Your task to perform on an android device: find which apps use the phone's location Image 0: 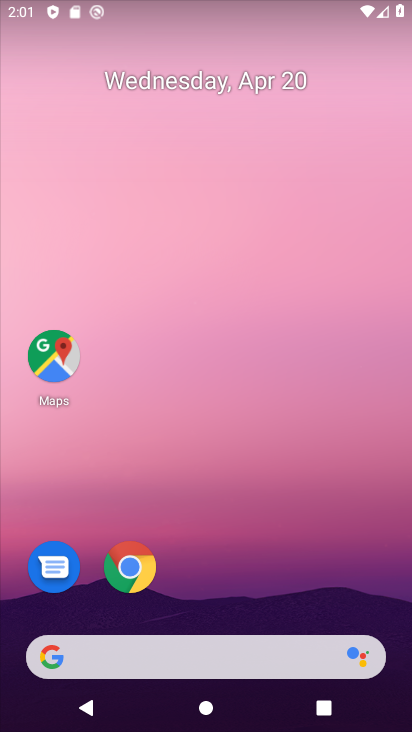
Step 0: drag from (250, 654) to (134, 16)
Your task to perform on an android device: find which apps use the phone's location Image 1: 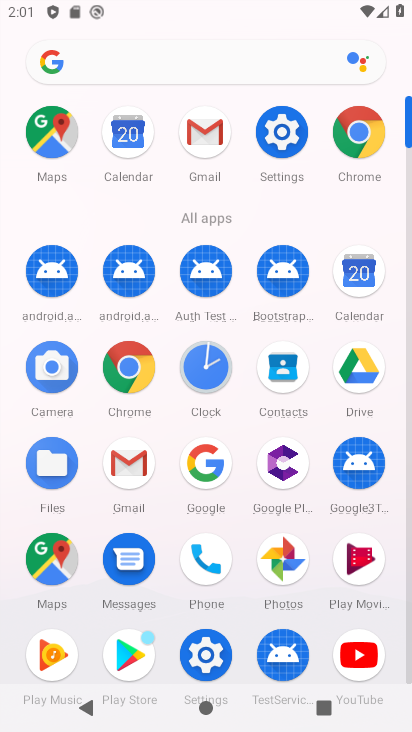
Step 1: click (272, 125)
Your task to perform on an android device: find which apps use the phone's location Image 2: 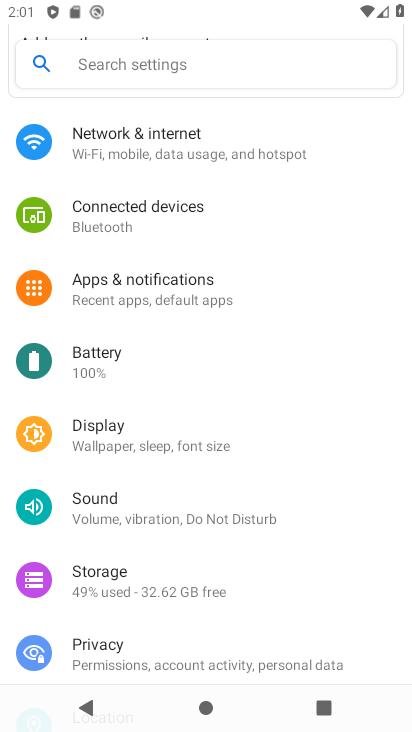
Step 2: drag from (134, 573) to (126, 181)
Your task to perform on an android device: find which apps use the phone's location Image 3: 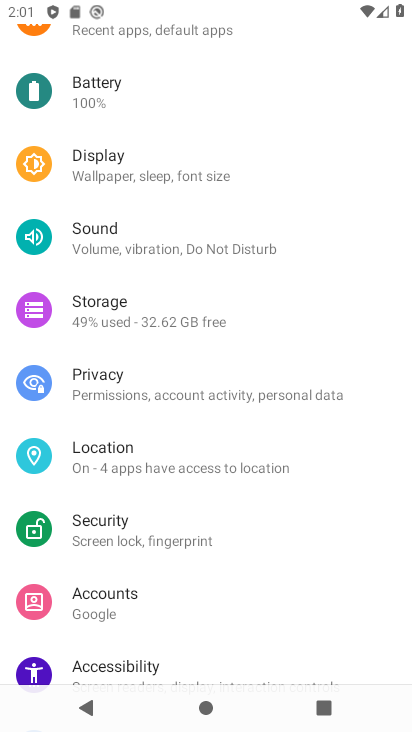
Step 3: click (115, 458)
Your task to perform on an android device: find which apps use the phone's location Image 4: 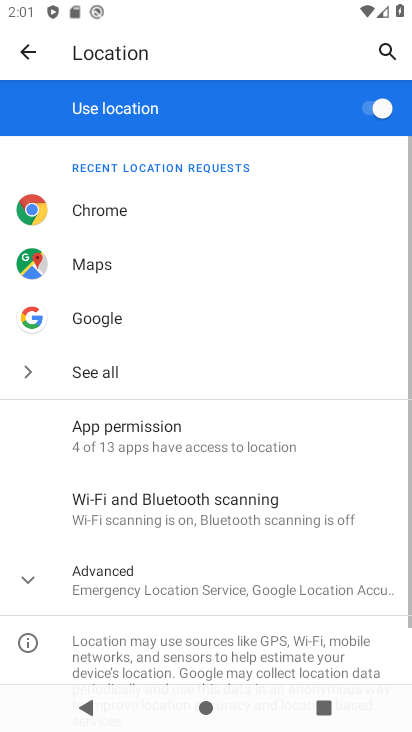
Step 4: click (164, 440)
Your task to perform on an android device: find which apps use the phone's location Image 5: 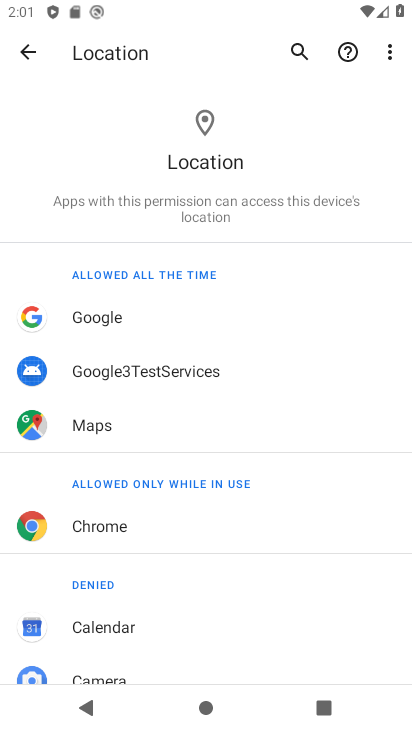
Step 5: task complete